Your task to perform on an android device: clear all cookies in the chrome app Image 0: 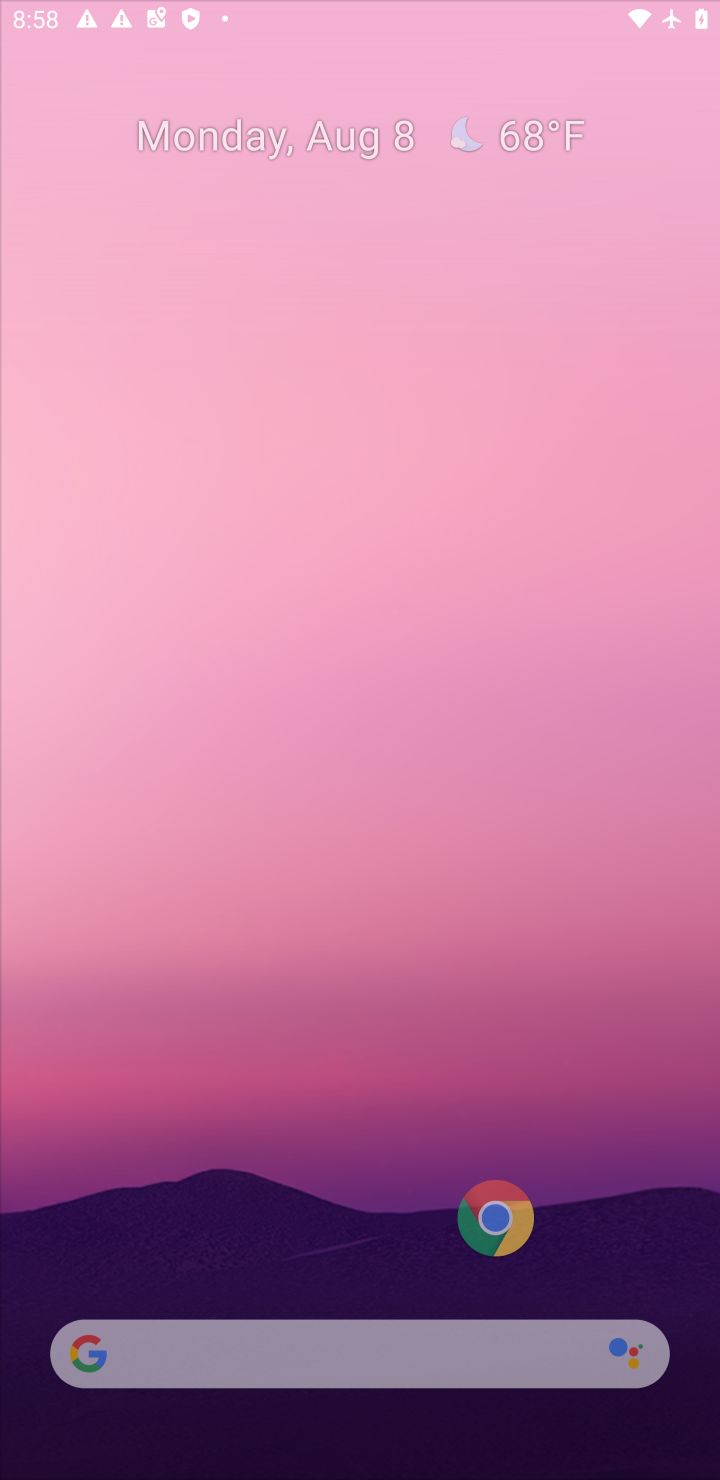
Step 0: press home button
Your task to perform on an android device: clear all cookies in the chrome app Image 1: 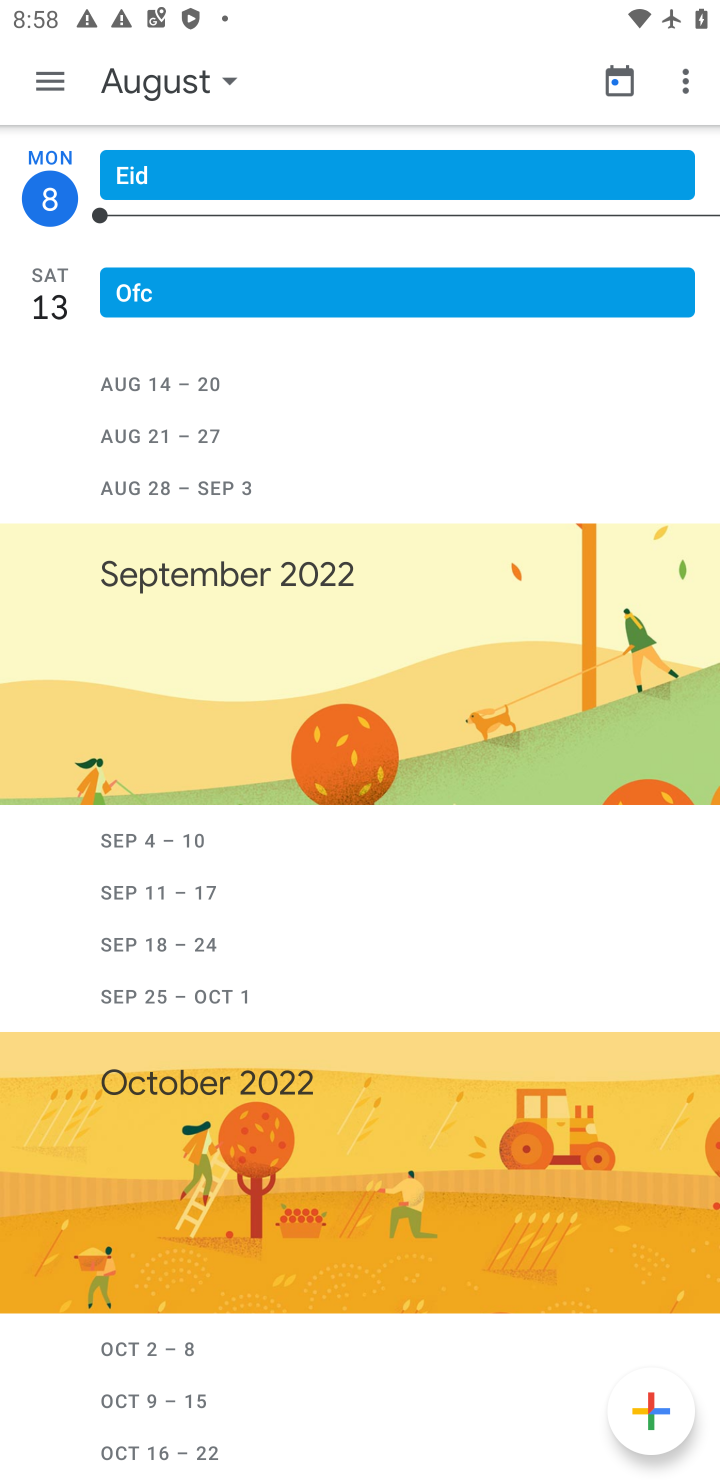
Step 1: drag from (271, 1278) to (66, 20)
Your task to perform on an android device: clear all cookies in the chrome app Image 2: 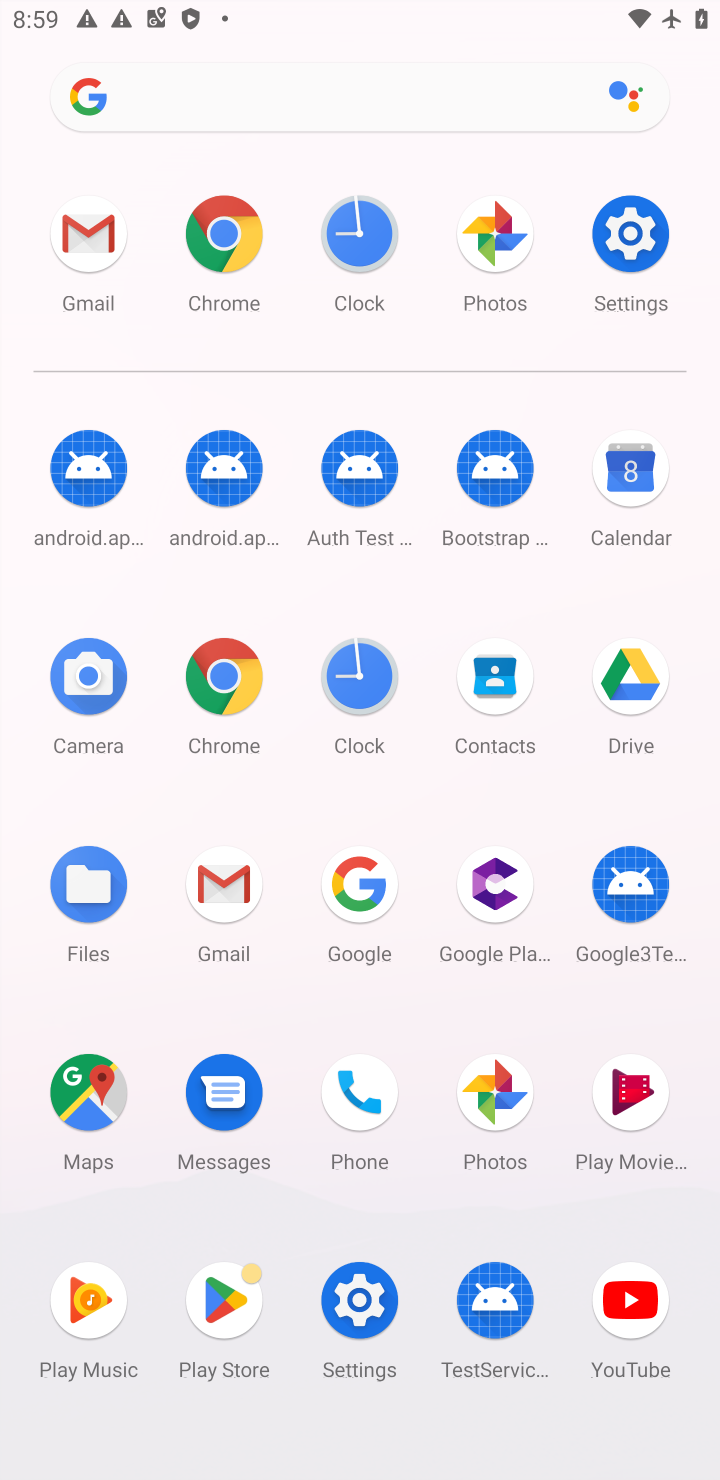
Step 2: click (245, 695)
Your task to perform on an android device: clear all cookies in the chrome app Image 3: 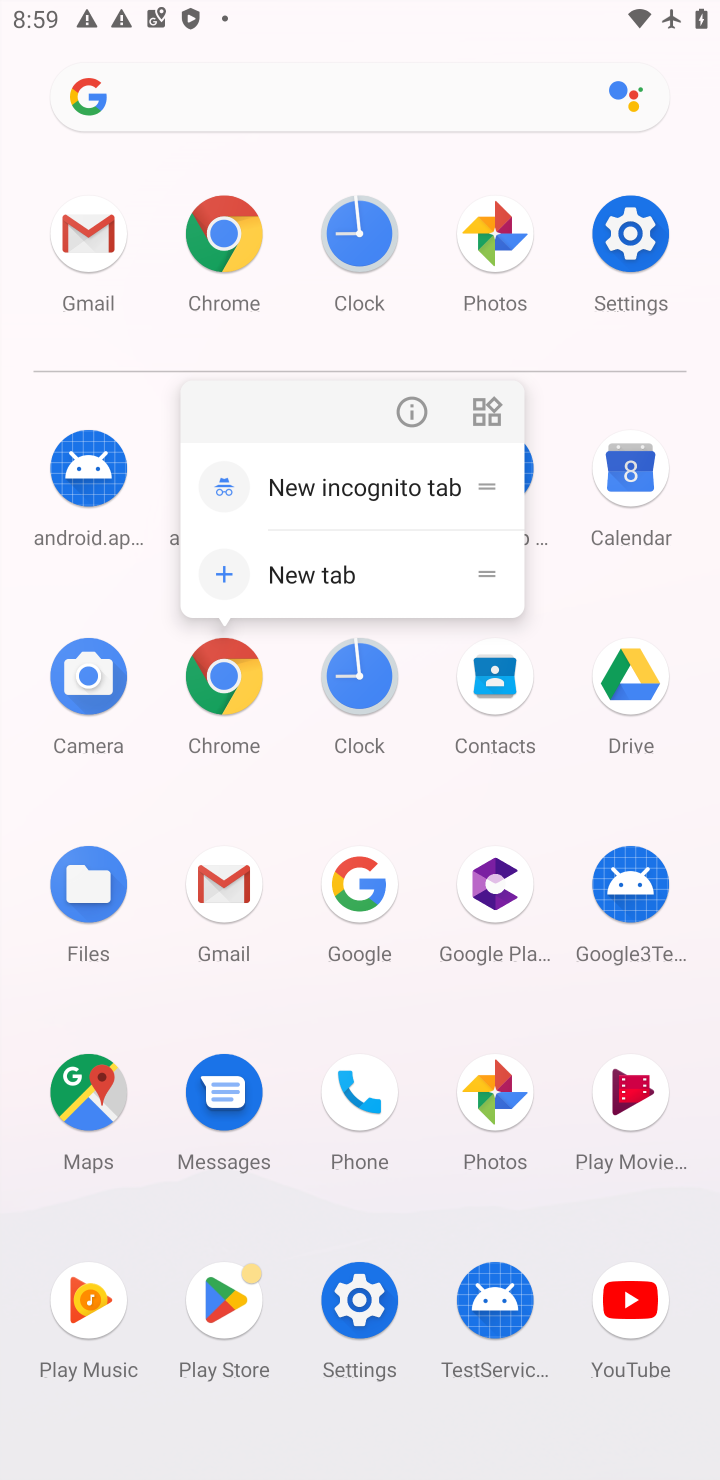
Step 3: click (227, 714)
Your task to perform on an android device: clear all cookies in the chrome app Image 4: 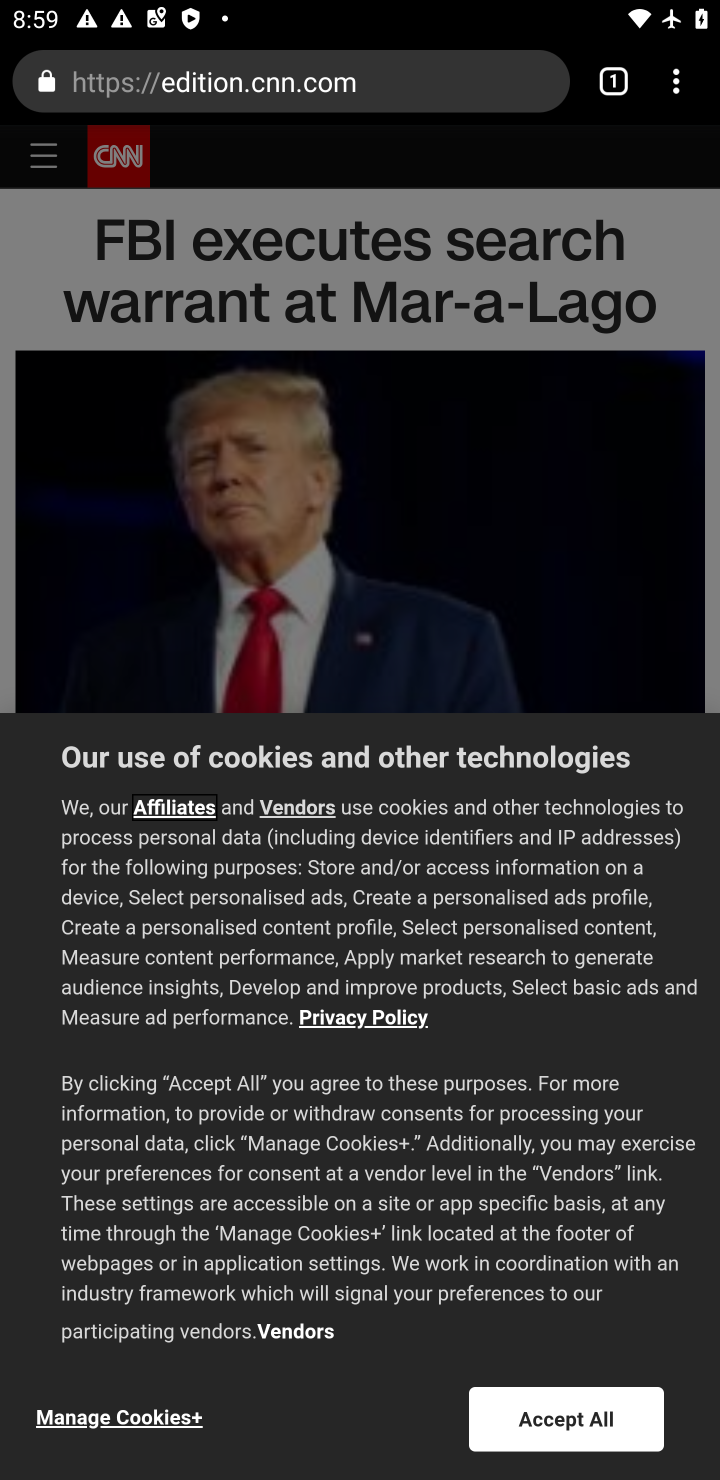
Step 4: click (683, 76)
Your task to perform on an android device: clear all cookies in the chrome app Image 5: 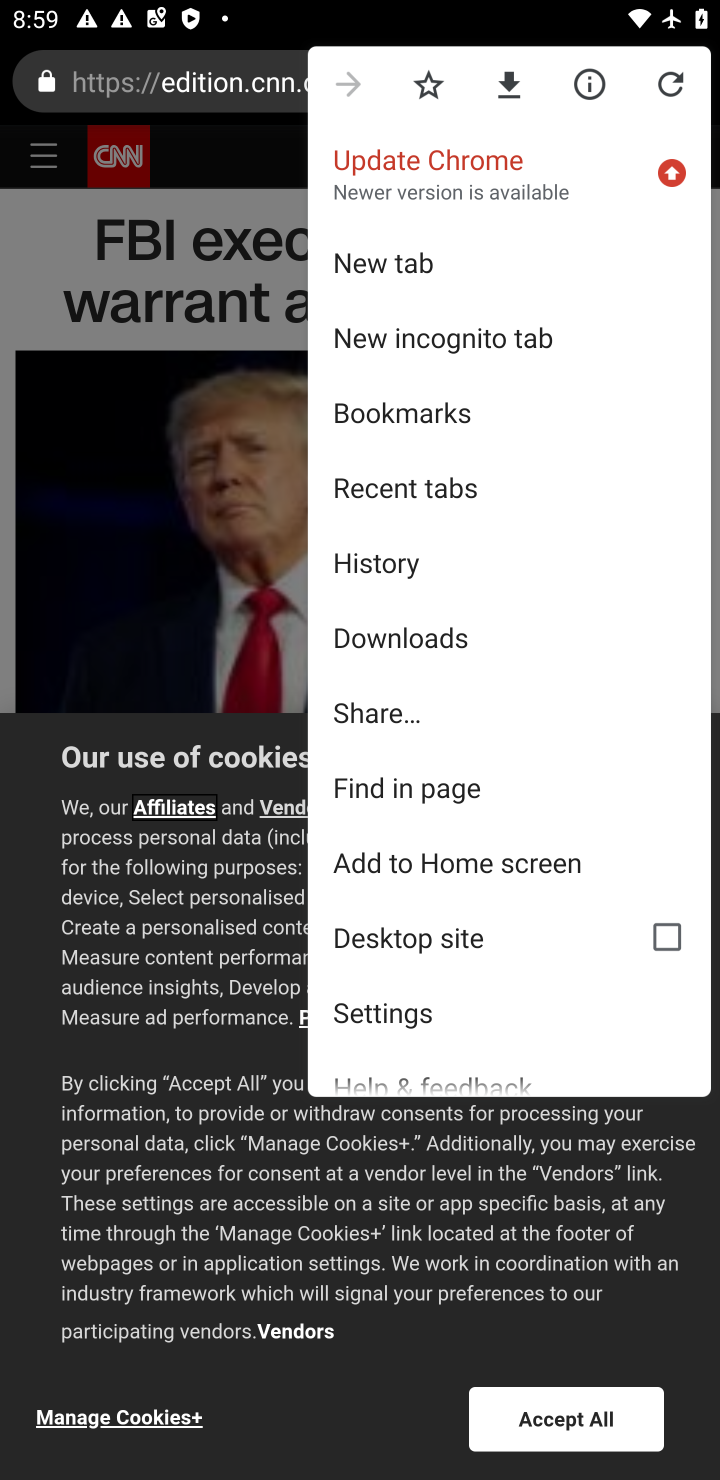
Step 5: click (405, 564)
Your task to perform on an android device: clear all cookies in the chrome app Image 6: 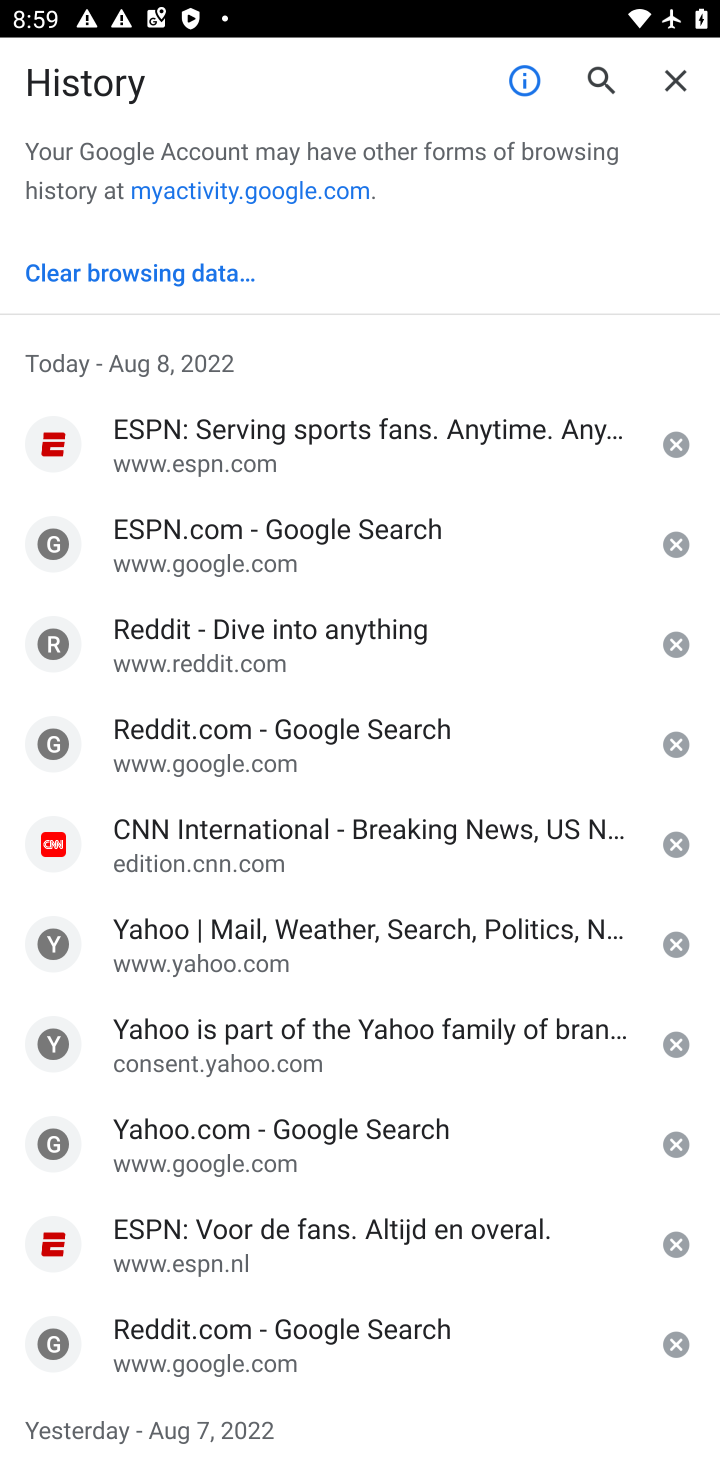
Step 6: click (165, 270)
Your task to perform on an android device: clear all cookies in the chrome app Image 7: 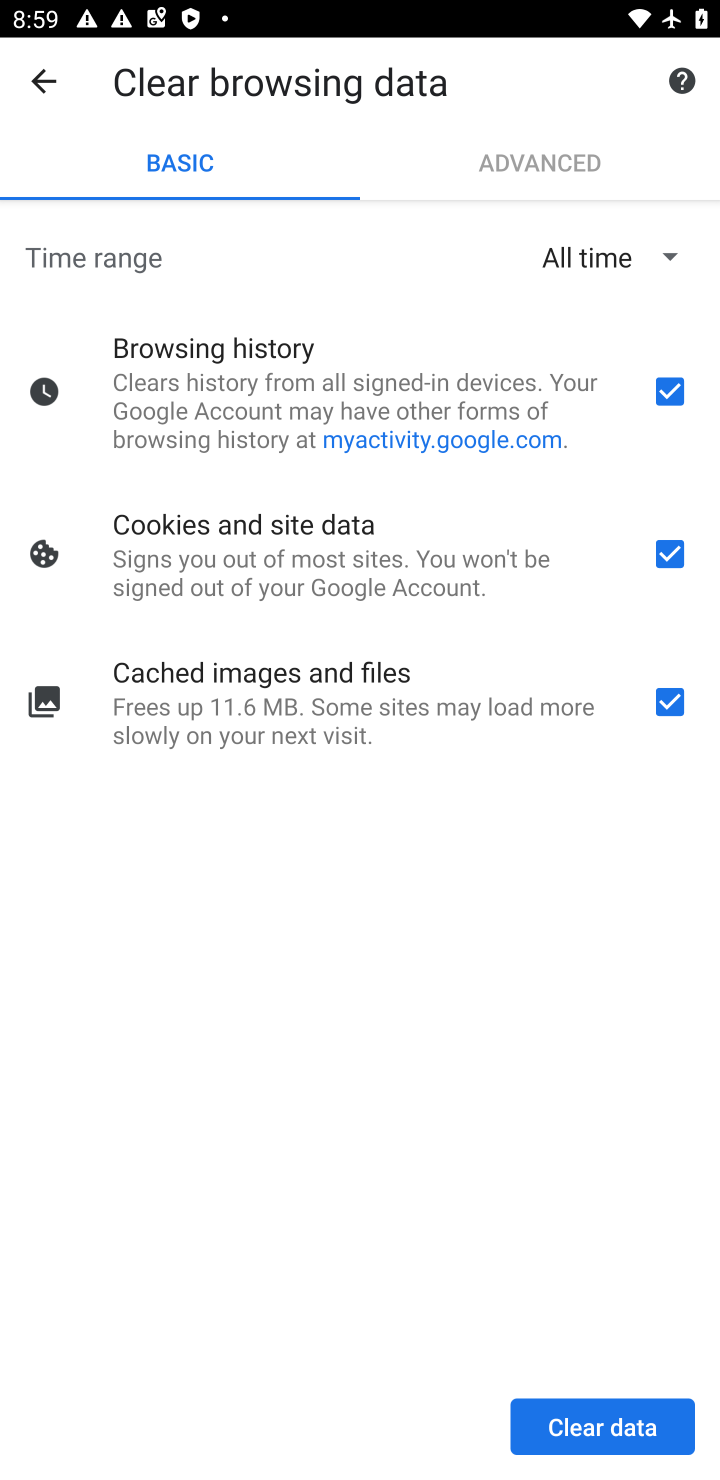
Step 7: click (670, 392)
Your task to perform on an android device: clear all cookies in the chrome app Image 8: 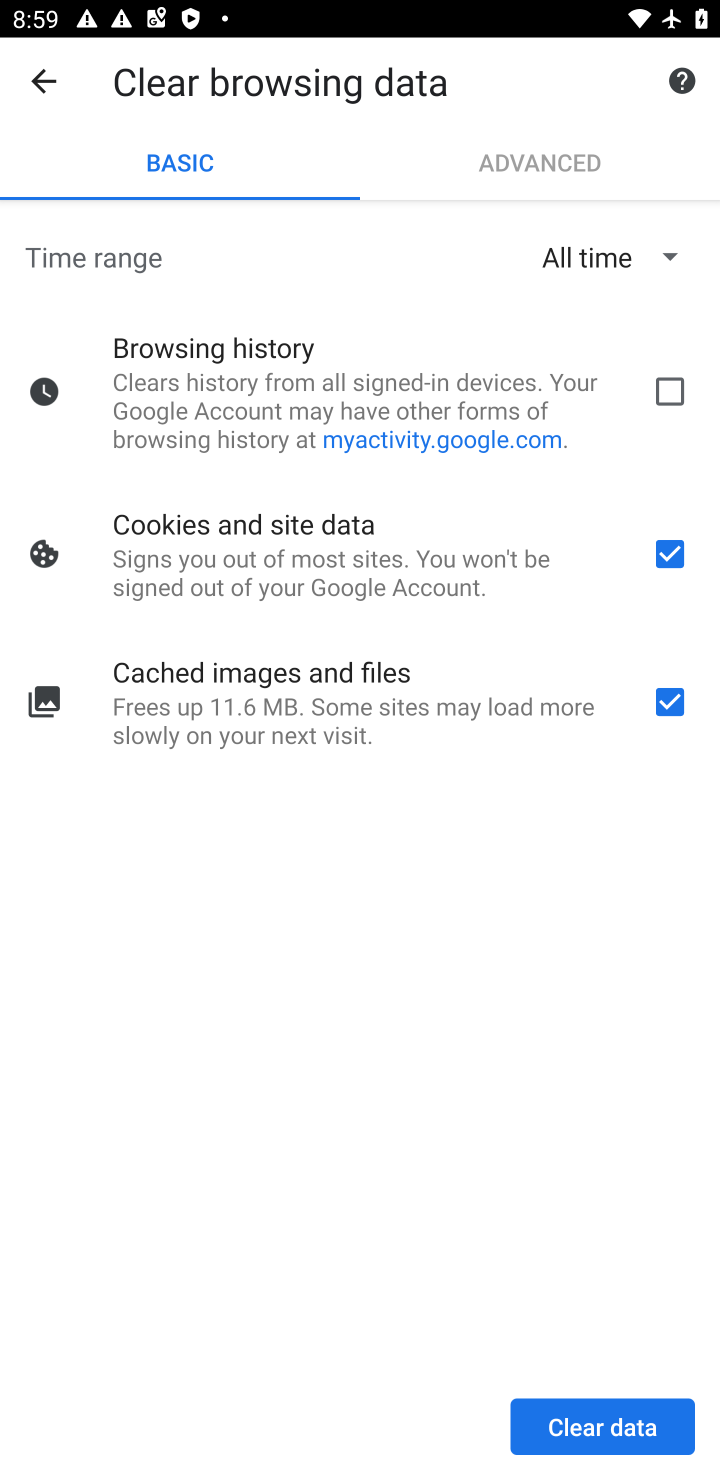
Step 8: click (672, 711)
Your task to perform on an android device: clear all cookies in the chrome app Image 9: 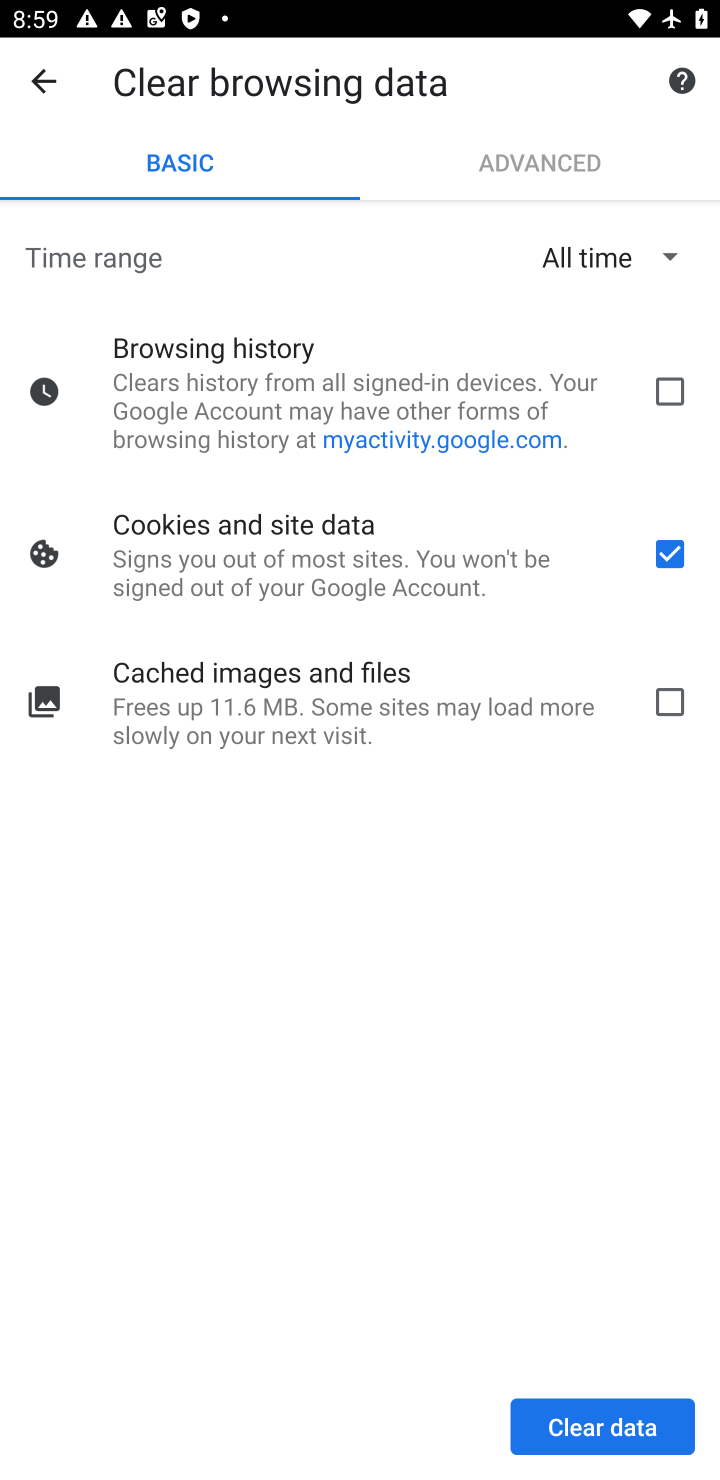
Step 9: click (641, 1426)
Your task to perform on an android device: clear all cookies in the chrome app Image 10: 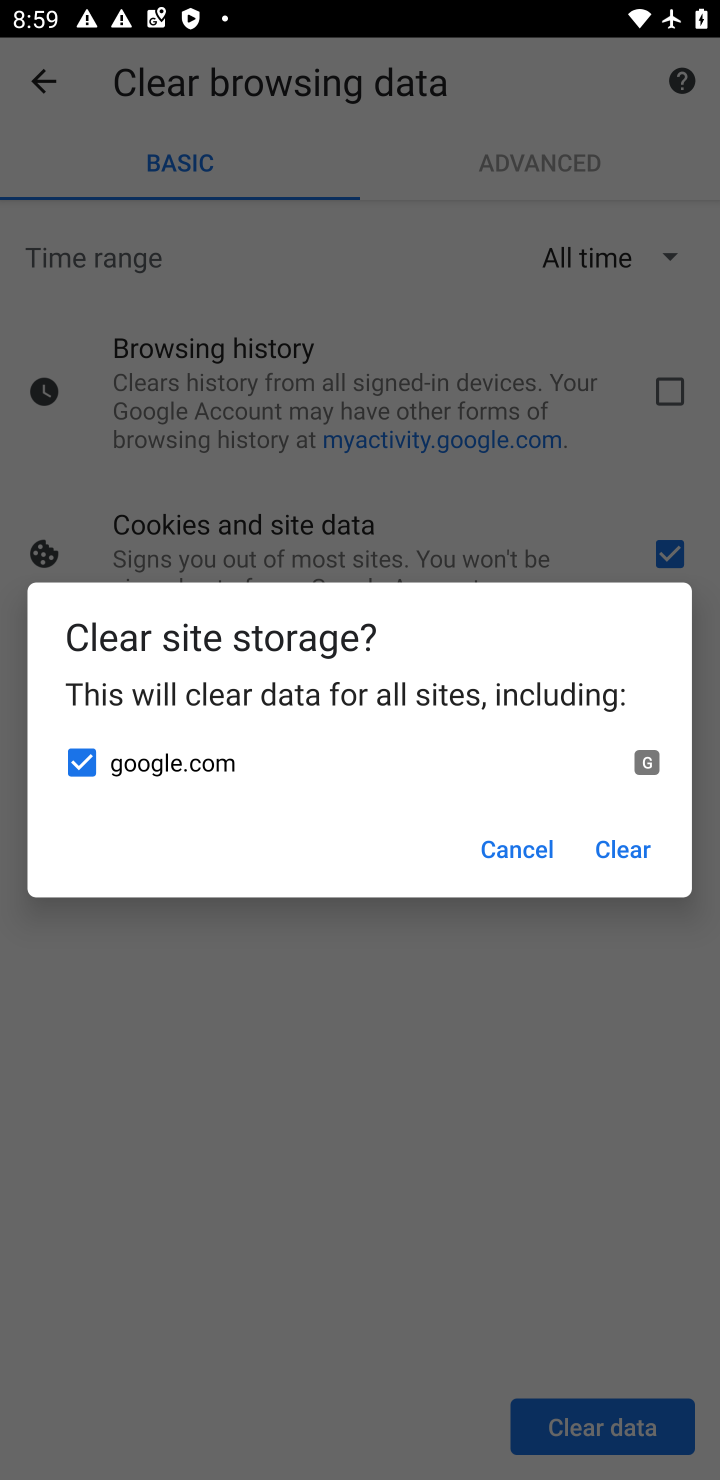
Step 10: click (641, 845)
Your task to perform on an android device: clear all cookies in the chrome app Image 11: 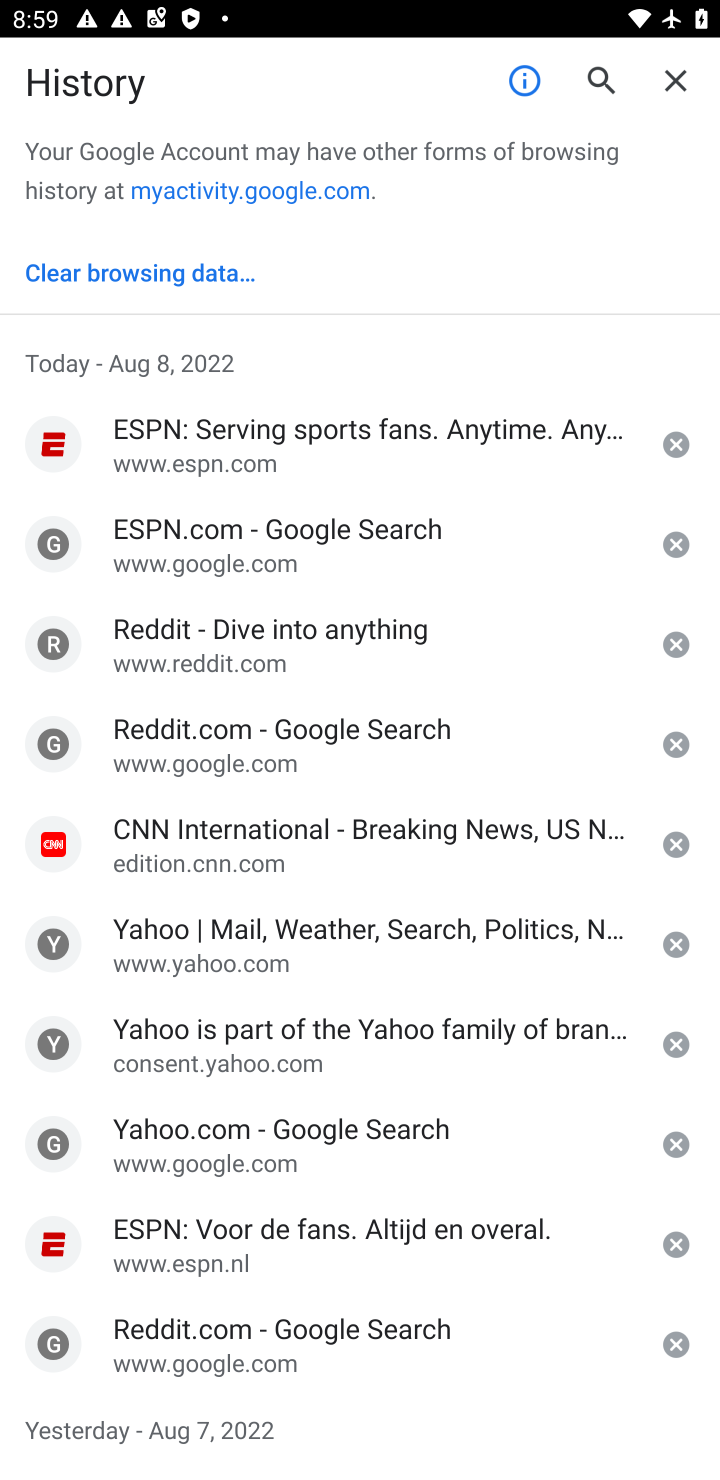
Step 11: task complete